Your task to perform on an android device: empty trash in google photos Image 0: 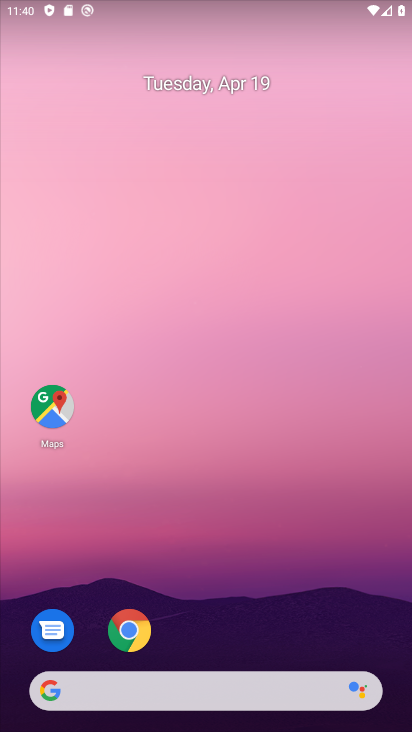
Step 0: drag from (247, 517) to (217, 144)
Your task to perform on an android device: empty trash in google photos Image 1: 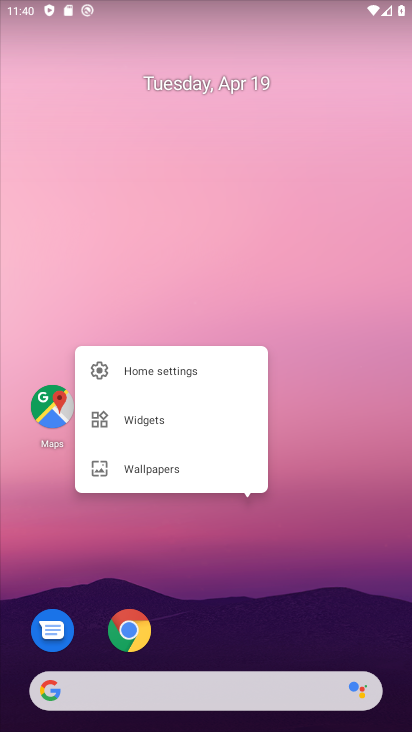
Step 1: drag from (331, 642) to (297, 70)
Your task to perform on an android device: empty trash in google photos Image 2: 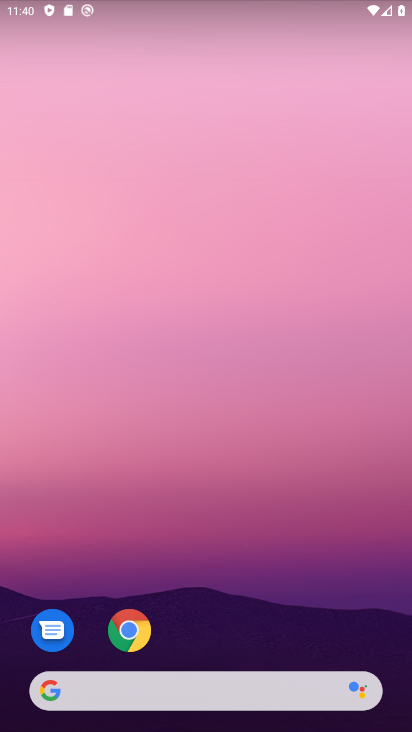
Step 2: drag from (368, 571) to (338, 123)
Your task to perform on an android device: empty trash in google photos Image 3: 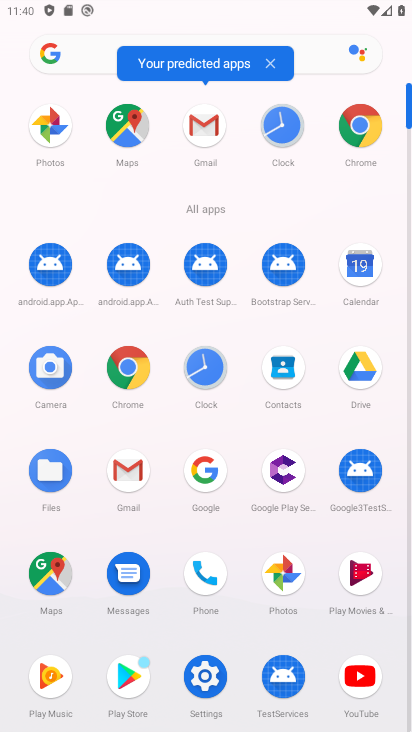
Step 3: click (284, 577)
Your task to perform on an android device: empty trash in google photos Image 4: 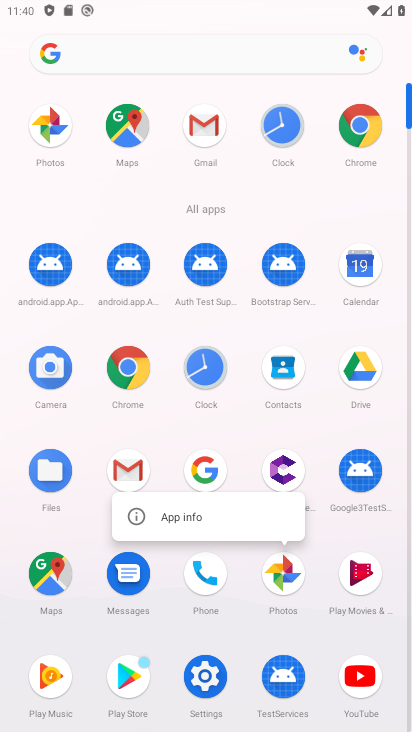
Step 4: click (286, 575)
Your task to perform on an android device: empty trash in google photos Image 5: 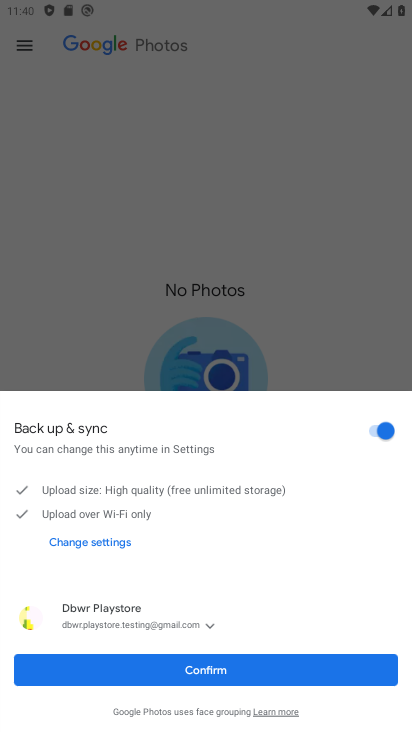
Step 5: click (254, 669)
Your task to perform on an android device: empty trash in google photos Image 6: 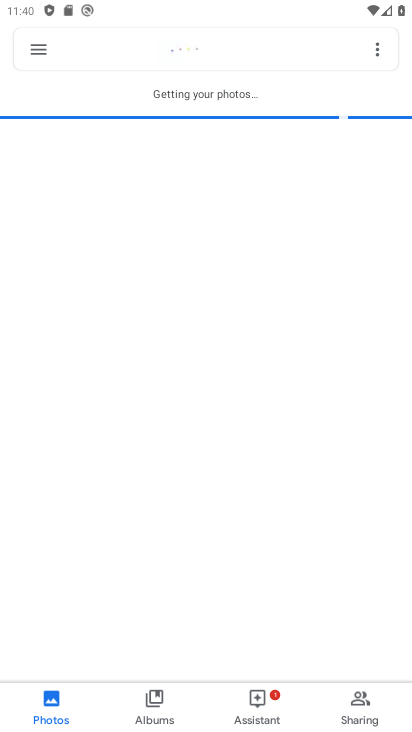
Step 6: click (39, 46)
Your task to perform on an android device: empty trash in google photos Image 7: 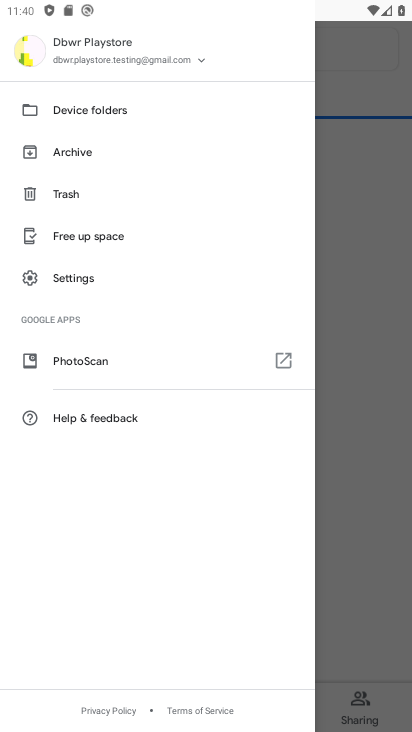
Step 7: click (74, 192)
Your task to perform on an android device: empty trash in google photos Image 8: 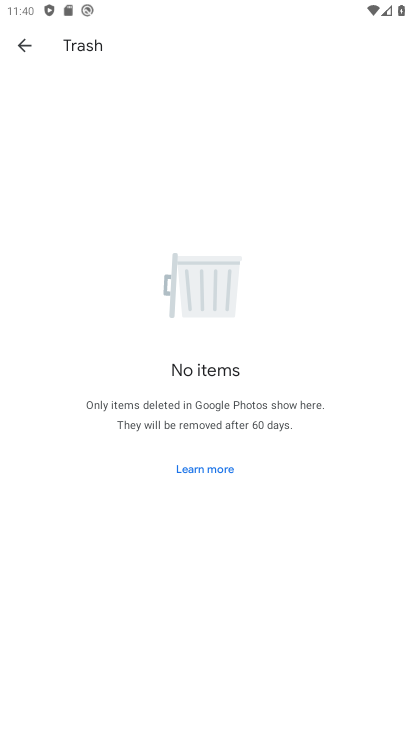
Step 8: task complete